Your task to perform on an android device: Open sound settings Image 0: 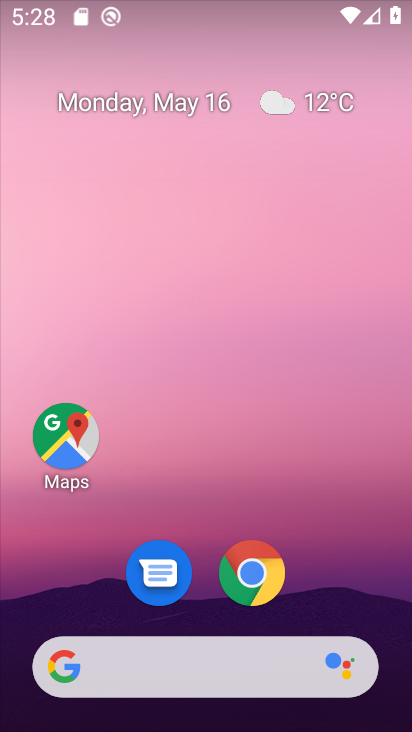
Step 0: drag from (213, 572) to (272, 125)
Your task to perform on an android device: Open sound settings Image 1: 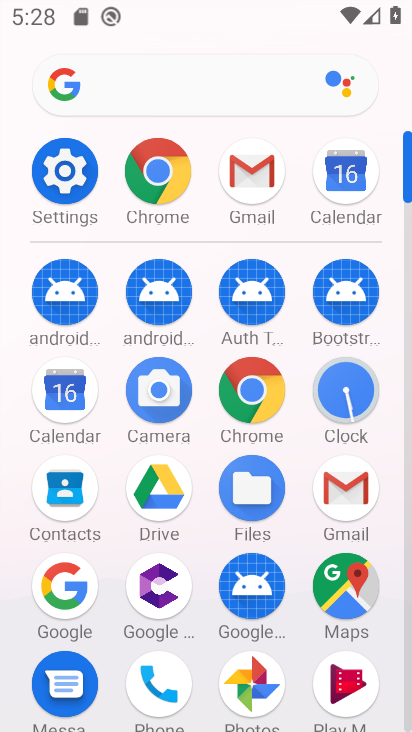
Step 1: click (75, 169)
Your task to perform on an android device: Open sound settings Image 2: 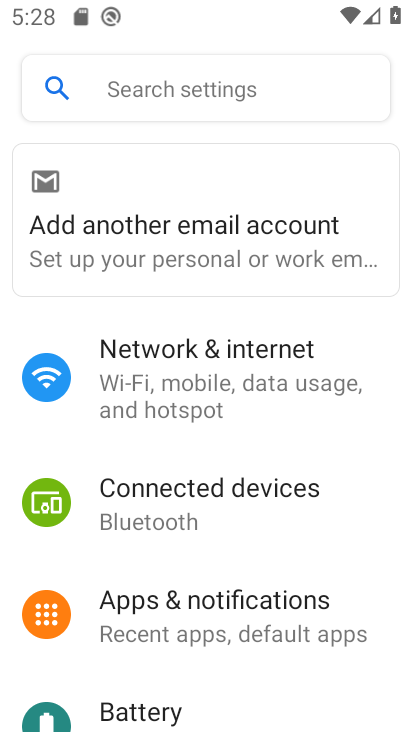
Step 2: drag from (151, 610) to (305, 34)
Your task to perform on an android device: Open sound settings Image 3: 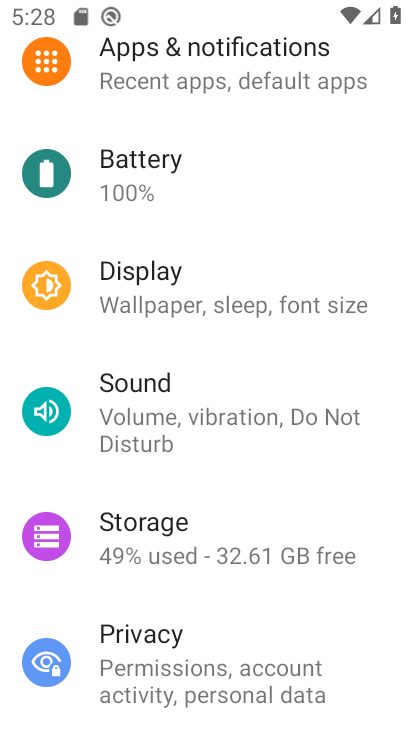
Step 3: click (144, 395)
Your task to perform on an android device: Open sound settings Image 4: 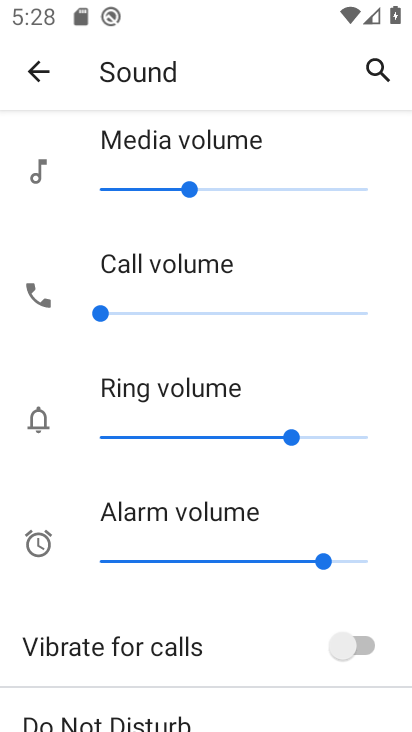
Step 4: task complete